Your task to perform on an android device: set default search engine in the chrome app Image 0: 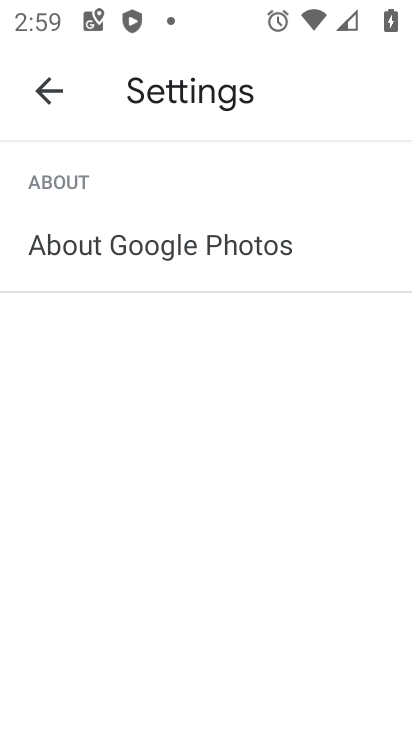
Step 0: press home button
Your task to perform on an android device: set default search engine in the chrome app Image 1: 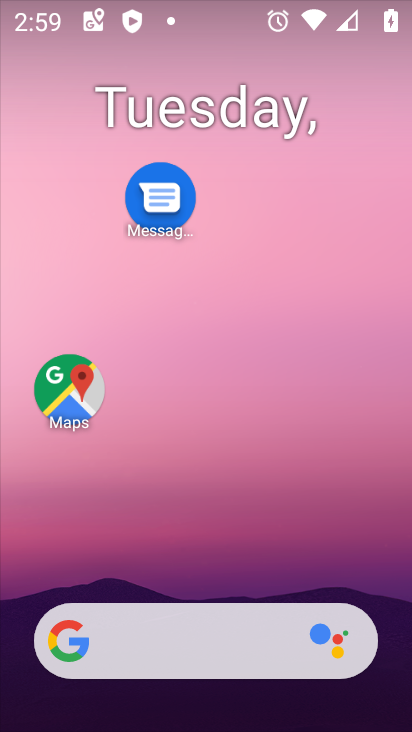
Step 1: drag from (242, 575) to (279, 160)
Your task to perform on an android device: set default search engine in the chrome app Image 2: 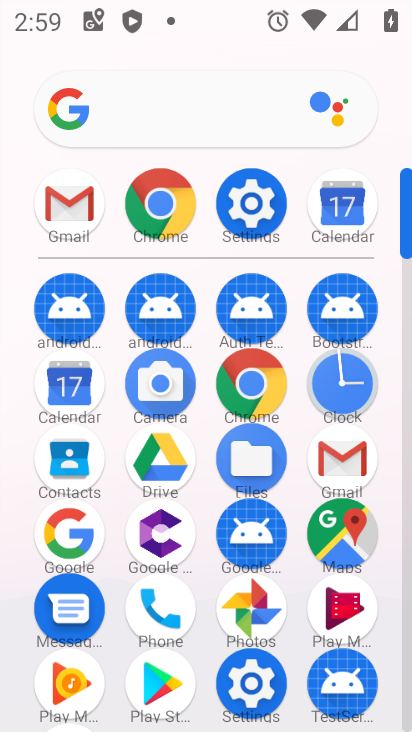
Step 2: click (171, 191)
Your task to perform on an android device: set default search engine in the chrome app Image 3: 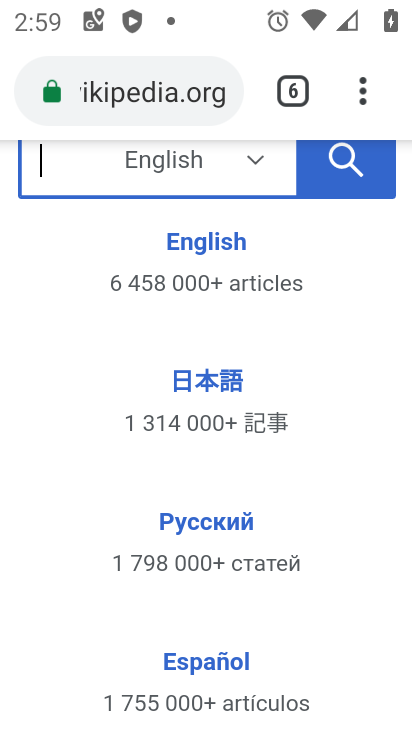
Step 3: click (285, 97)
Your task to perform on an android device: set default search engine in the chrome app Image 4: 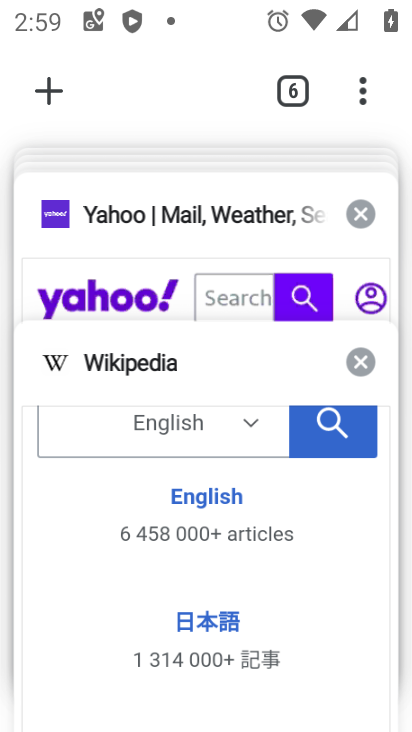
Step 4: click (363, 86)
Your task to perform on an android device: set default search engine in the chrome app Image 5: 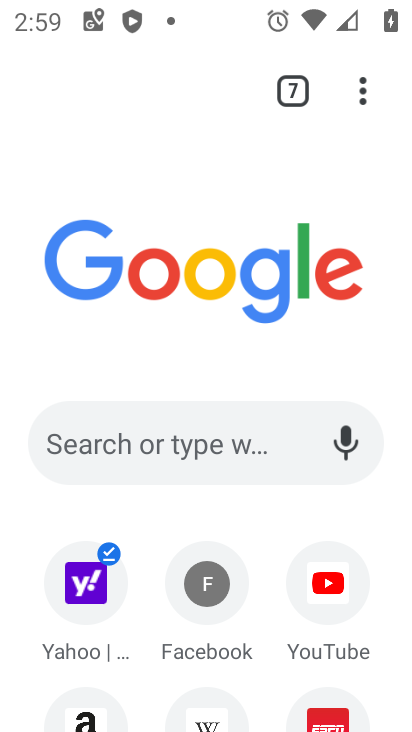
Step 5: click (361, 95)
Your task to perform on an android device: set default search engine in the chrome app Image 6: 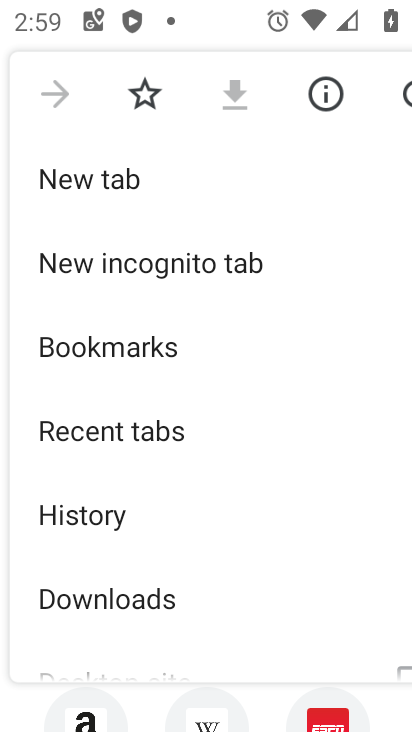
Step 6: drag from (184, 588) to (238, 315)
Your task to perform on an android device: set default search engine in the chrome app Image 7: 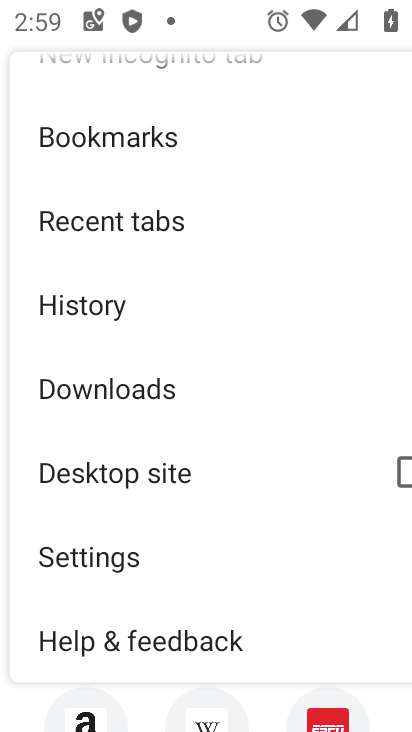
Step 7: click (127, 544)
Your task to perform on an android device: set default search engine in the chrome app Image 8: 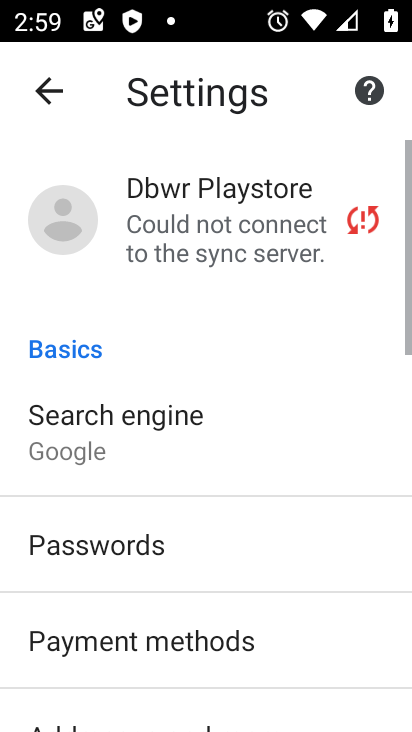
Step 8: drag from (181, 585) to (196, 498)
Your task to perform on an android device: set default search engine in the chrome app Image 9: 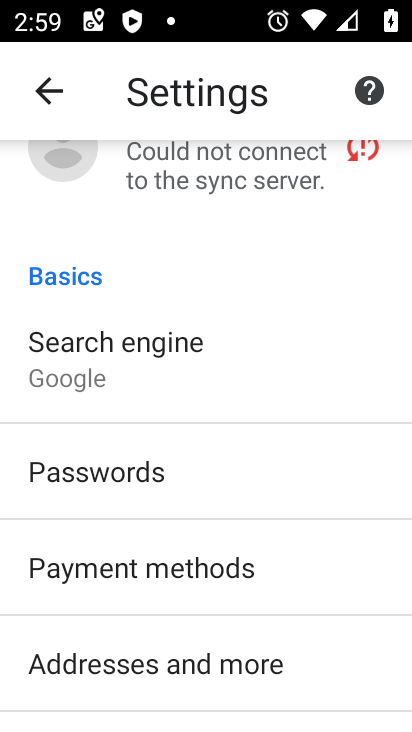
Step 9: click (133, 354)
Your task to perform on an android device: set default search engine in the chrome app Image 10: 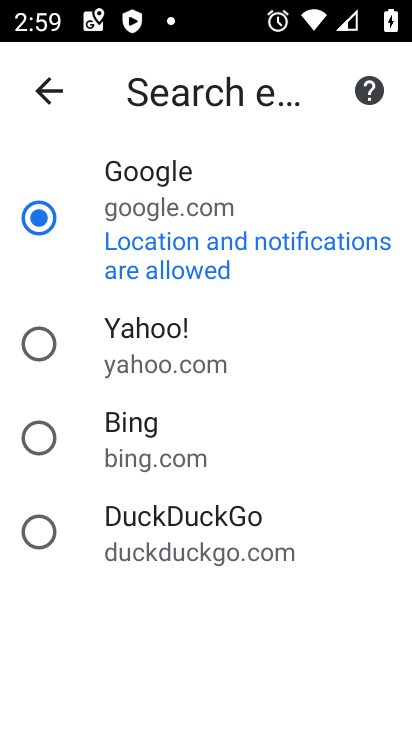
Step 10: click (59, 345)
Your task to perform on an android device: set default search engine in the chrome app Image 11: 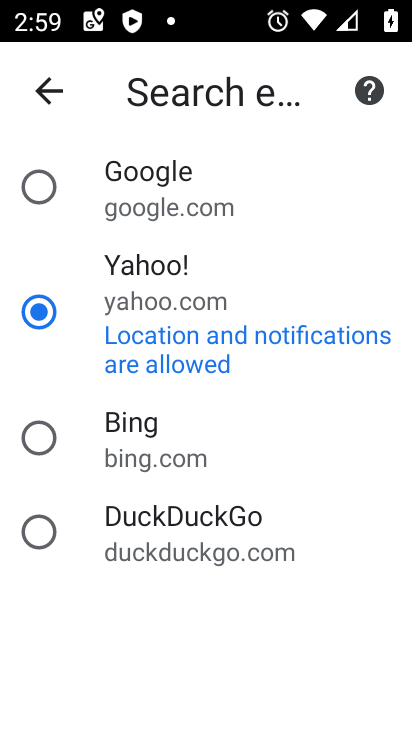
Step 11: task complete